Your task to perform on an android device: toggle airplane mode Image 0: 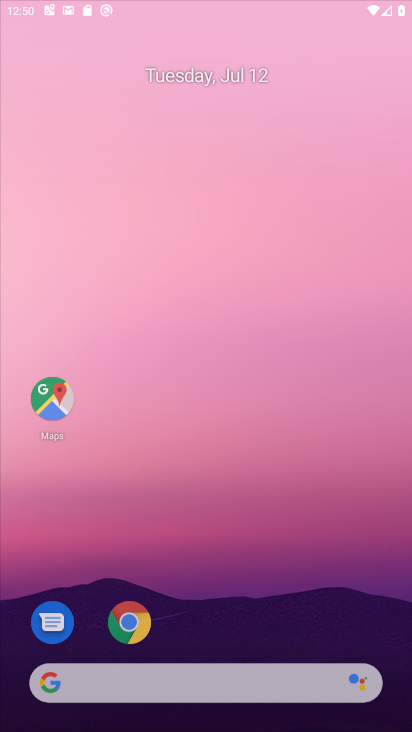
Step 0: click (289, 153)
Your task to perform on an android device: toggle airplane mode Image 1: 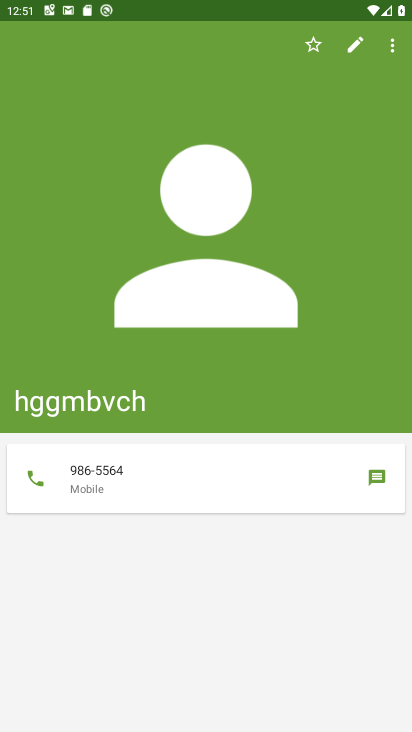
Step 1: press home button
Your task to perform on an android device: toggle airplane mode Image 2: 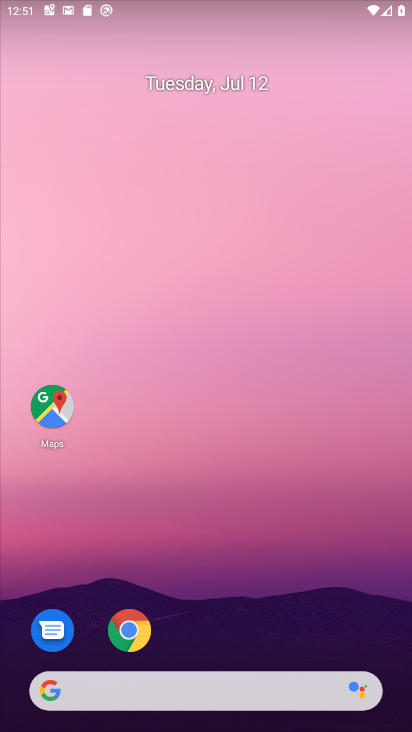
Step 2: drag from (223, 622) to (278, 49)
Your task to perform on an android device: toggle airplane mode Image 3: 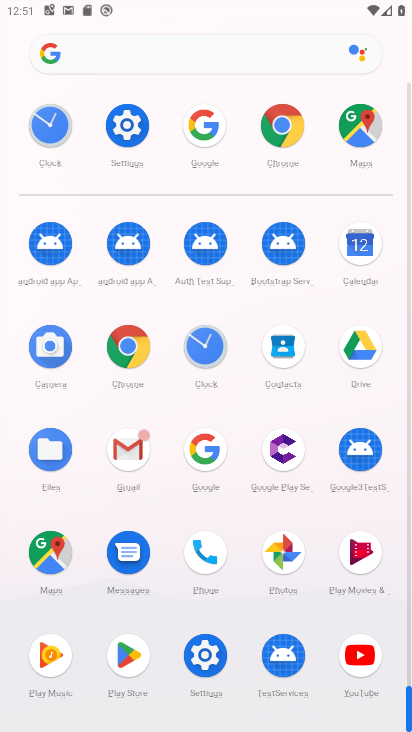
Step 3: click (138, 139)
Your task to perform on an android device: toggle airplane mode Image 4: 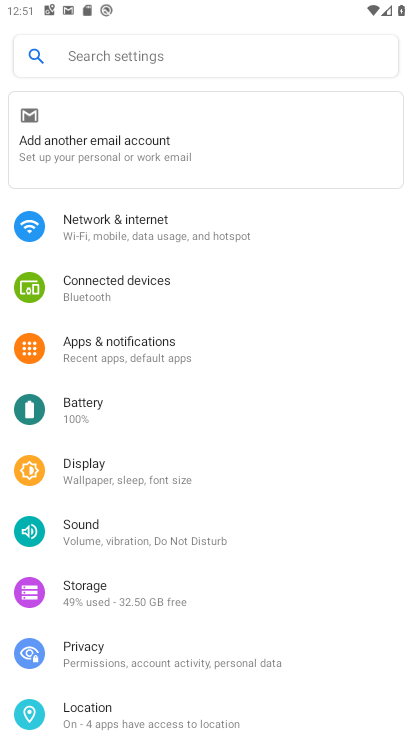
Step 4: click (201, 243)
Your task to perform on an android device: toggle airplane mode Image 5: 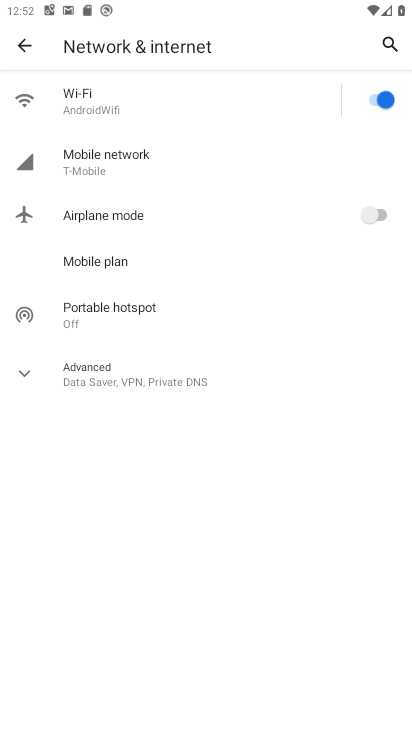
Step 5: click (240, 220)
Your task to perform on an android device: toggle airplane mode Image 6: 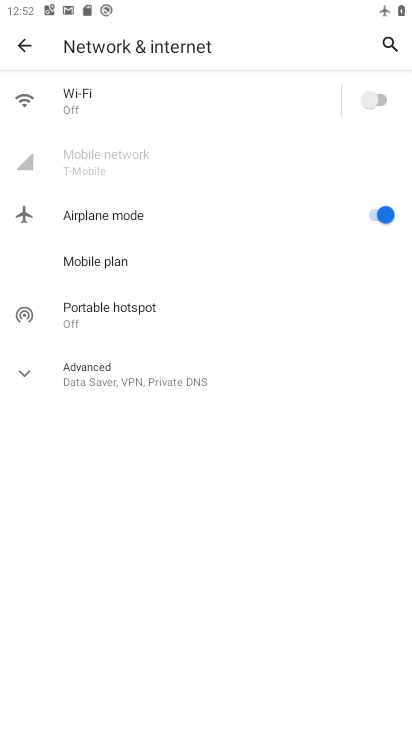
Step 6: task complete